Your task to perform on an android device: Go to internet settings Image 0: 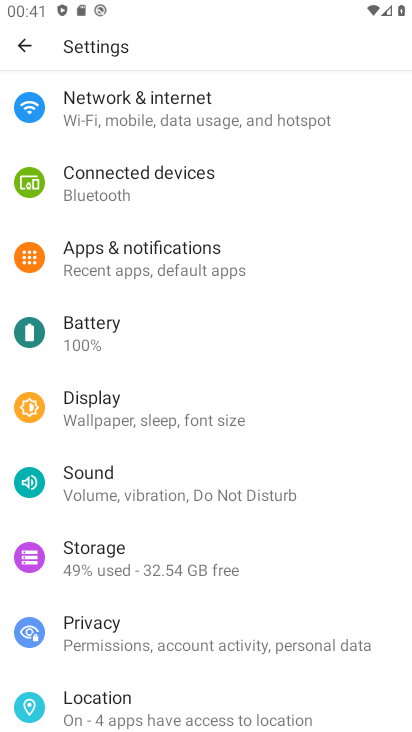
Step 0: press home button
Your task to perform on an android device: Go to internet settings Image 1: 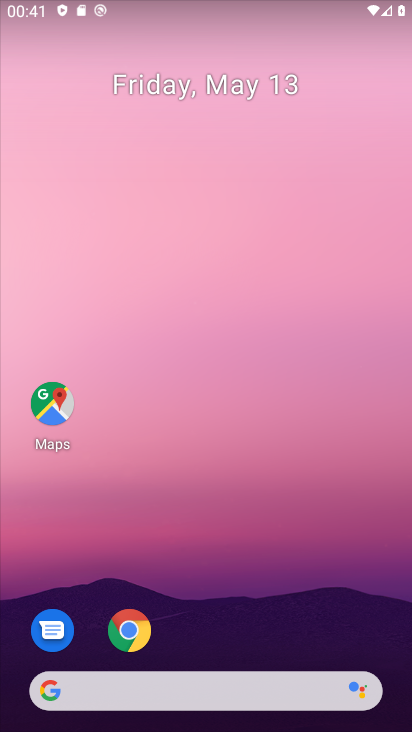
Step 1: drag from (221, 701) to (171, 78)
Your task to perform on an android device: Go to internet settings Image 2: 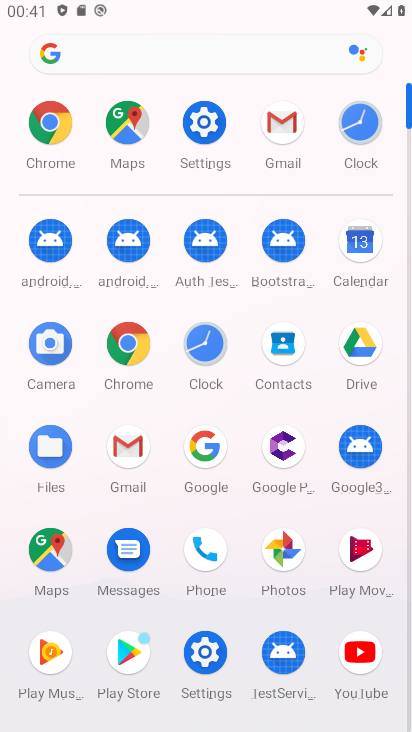
Step 2: click (199, 117)
Your task to perform on an android device: Go to internet settings Image 3: 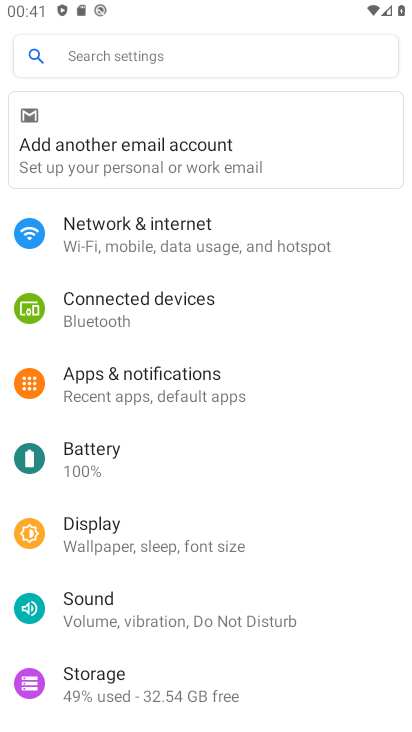
Step 3: click (130, 239)
Your task to perform on an android device: Go to internet settings Image 4: 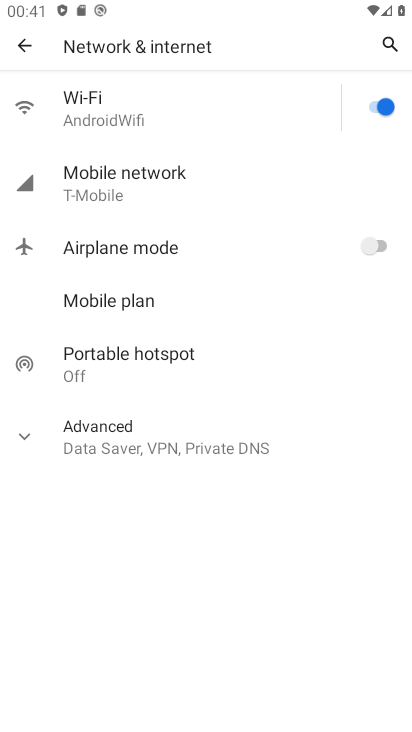
Step 4: click (139, 177)
Your task to perform on an android device: Go to internet settings Image 5: 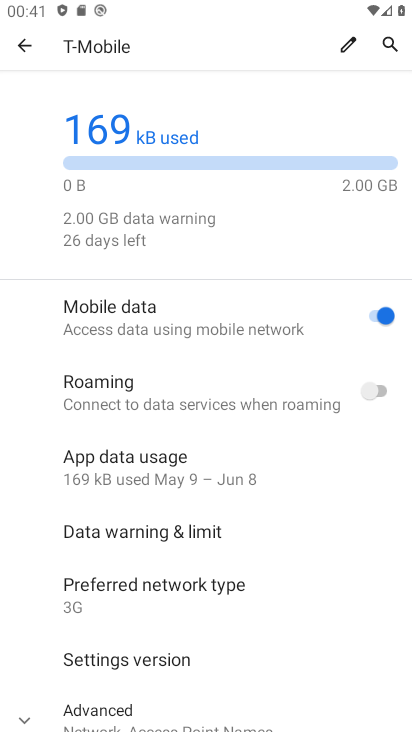
Step 5: task complete